Your task to perform on an android device: Go to settings Image 0: 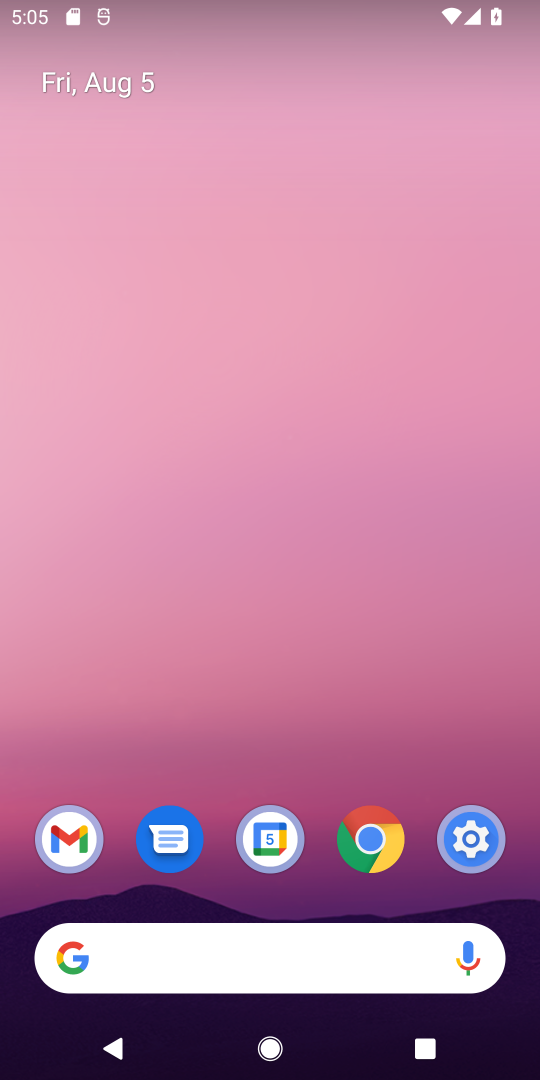
Step 0: click (451, 838)
Your task to perform on an android device: Go to settings Image 1: 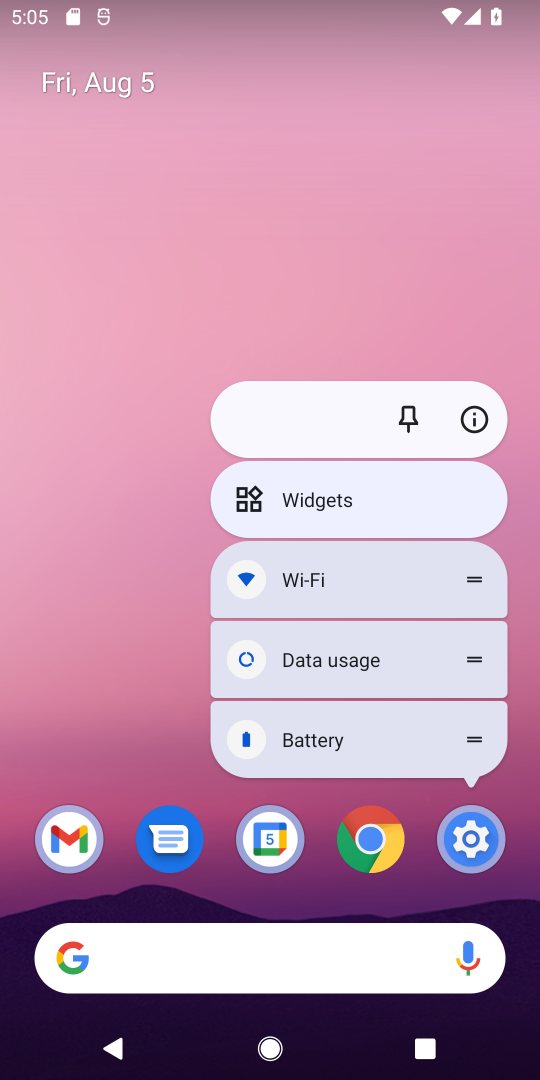
Step 1: click (465, 827)
Your task to perform on an android device: Go to settings Image 2: 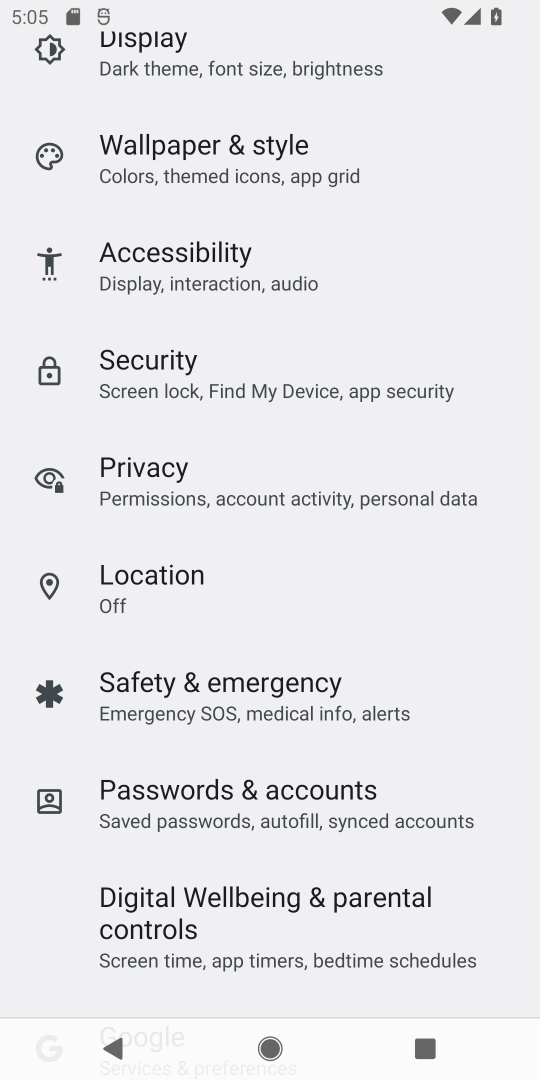
Step 2: task complete